Your task to perform on an android device: Go to Google maps Image 0: 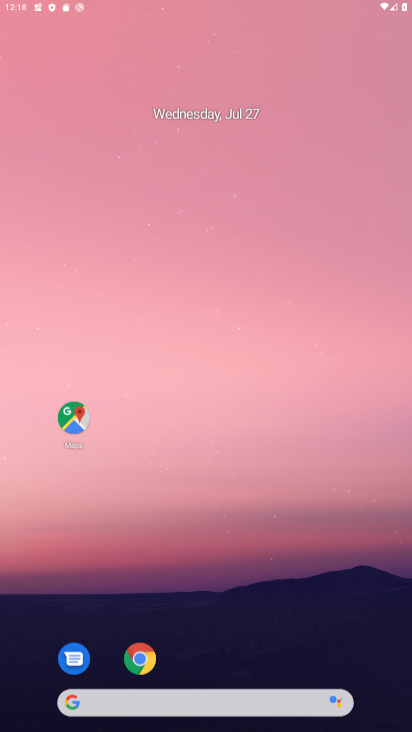
Step 0: press home button
Your task to perform on an android device: Go to Google maps Image 1: 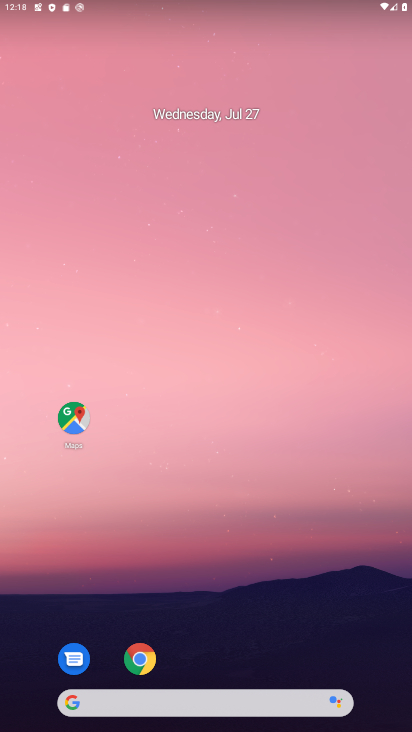
Step 1: click (71, 409)
Your task to perform on an android device: Go to Google maps Image 2: 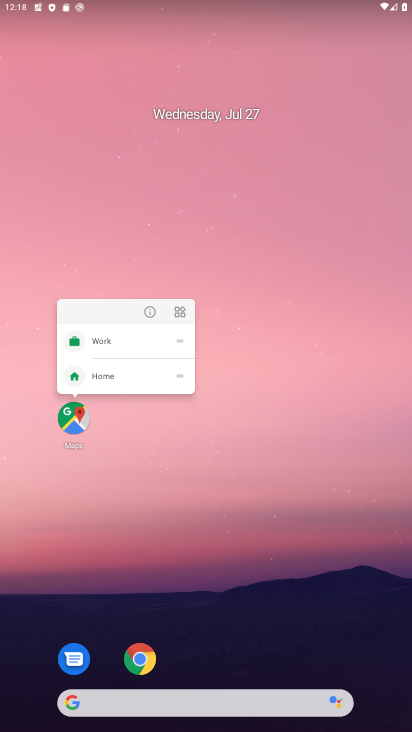
Step 2: click (71, 420)
Your task to perform on an android device: Go to Google maps Image 3: 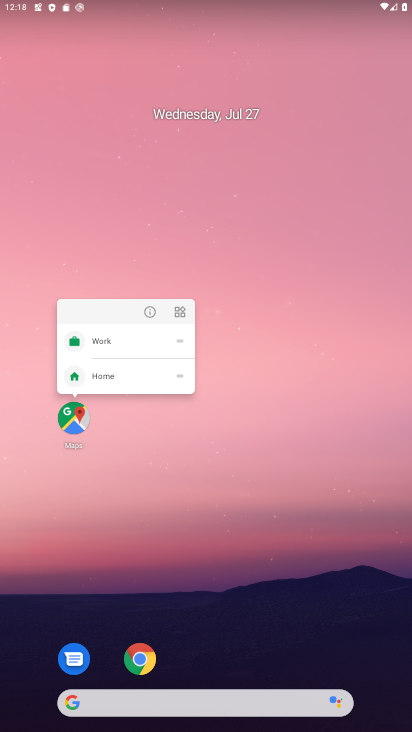
Step 3: click (68, 414)
Your task to perform on an android device: Go to Google maps Image 4: 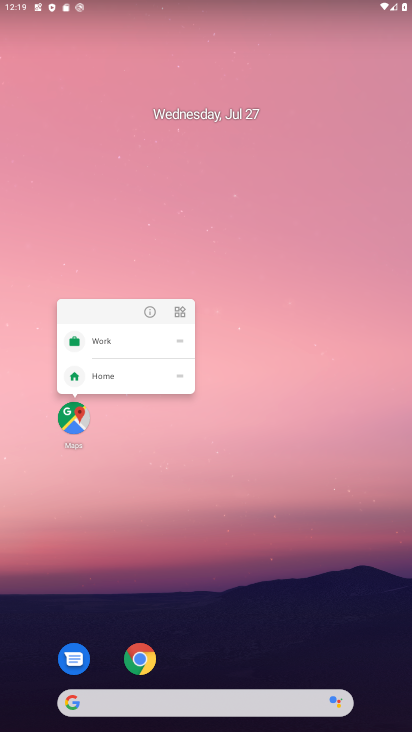
Step 4: click (63, 422)
Your task to perform on an android device: Go to Google maps Image 5: 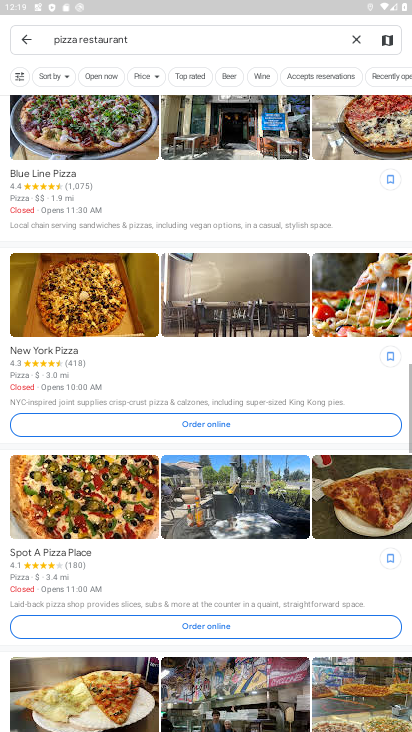
Step 5: click (23, 39)
Your task to perform on an android device: Go to Google maps Image 6: 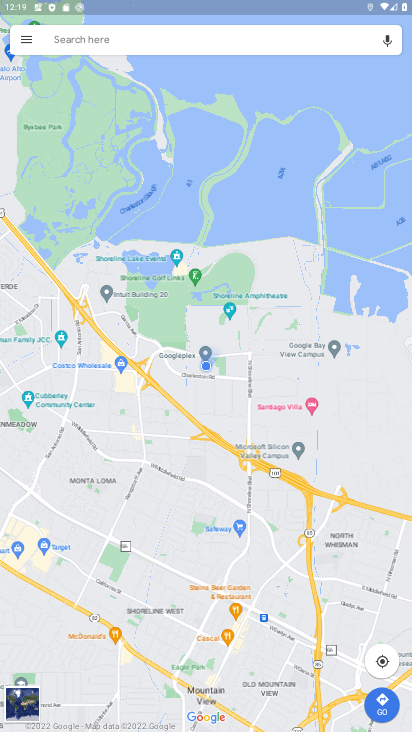
Step 6: task complete